Your task to perform on an android device: Open Yahoo.com Image 0: 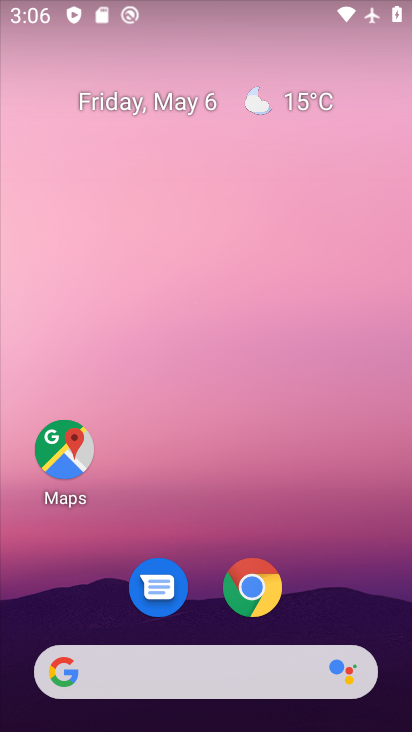
Step 0: press home button
Your task to perform on an android device: Open Yahoo.com Image 1: 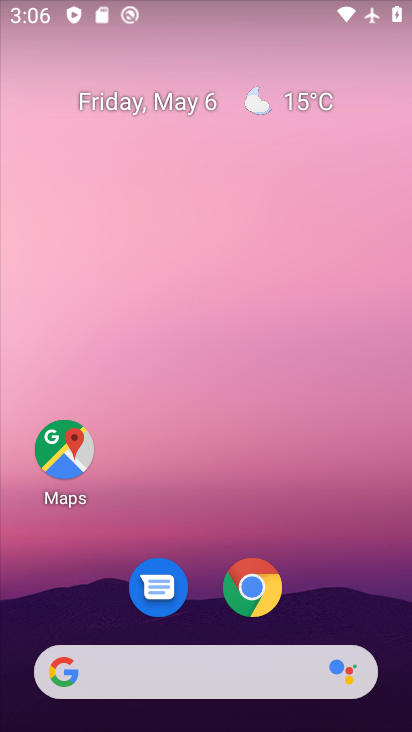
Step 1: press home button
Your task to perform on an android device: Open Yahoo.com Image 2: 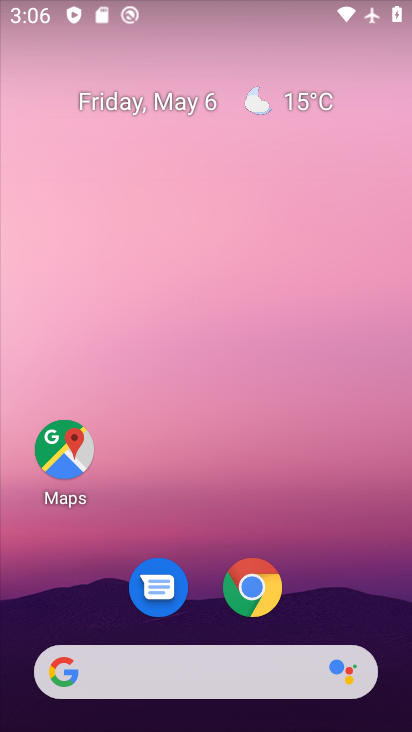
Step 2: click (257, 590)
Your task to perform on an android device: Open Yahoo.com Image 3: 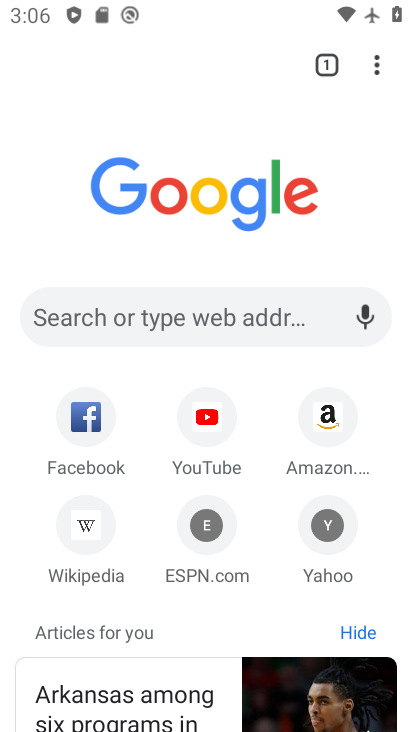
Step 3: click (337, 529)
Your task to perform on an android device: Open Yahoo.com Image 4: 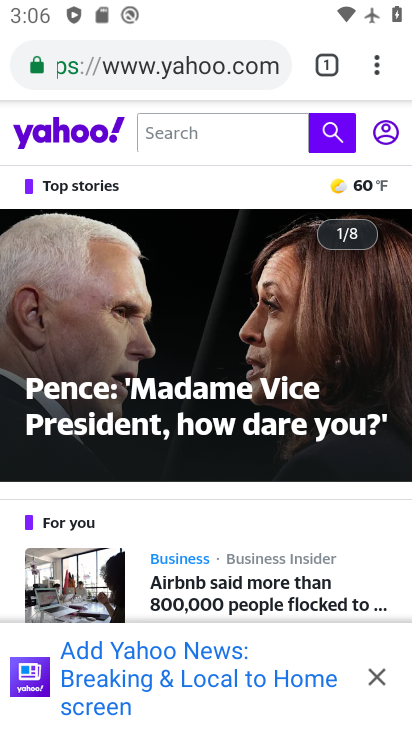
Step 4: task complete